Your task to perform on an android device: add a contact Image 0: 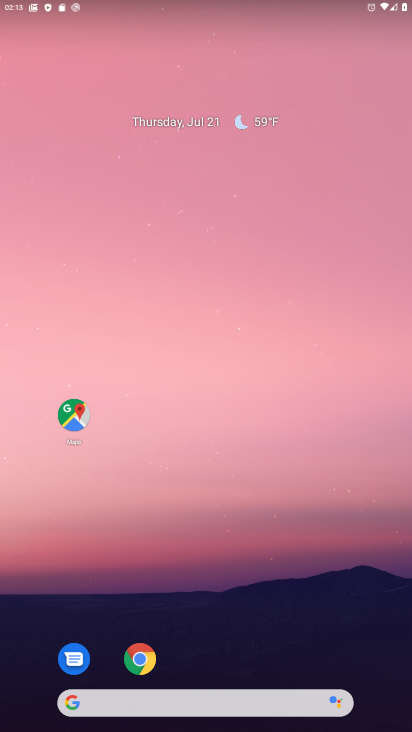
Step 0: drag from (273, 565) to (257, 118)
Your task to perform on an android device: add a contact Image 1: 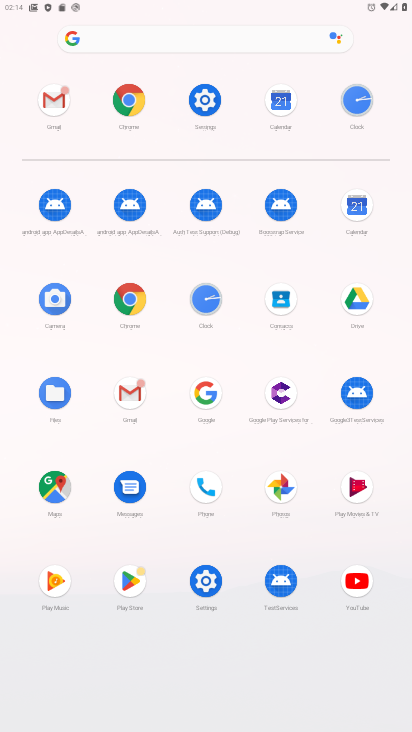
Step 1: click (288, 286)
Your task to perform on an android device: add a contact Image 2: 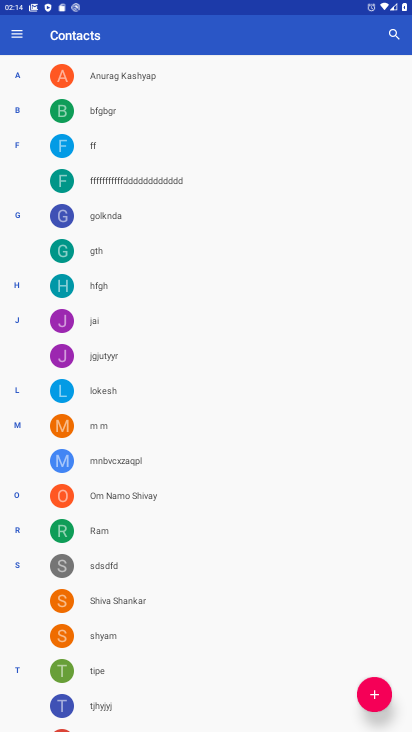
Step 2: click (371, 694)
Your task to perform on an android device: add a contact Image 3: 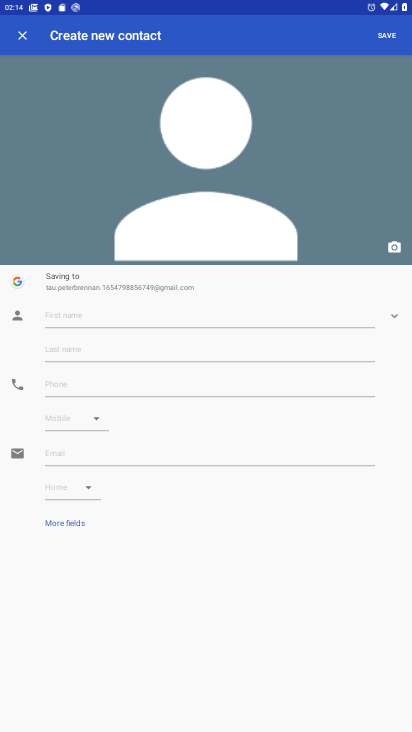
Step 3: click (214, 319)
Your task to perform on an android device: add a contact Image 4: 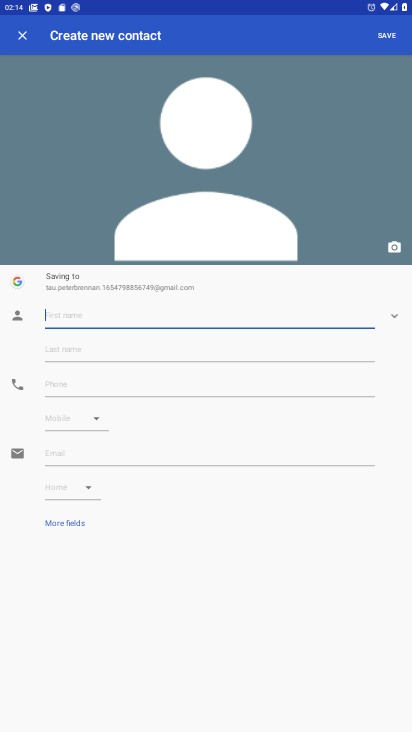
Step 4: click (214, 319)
Your task to perform on an android device: add a contact Image 5: 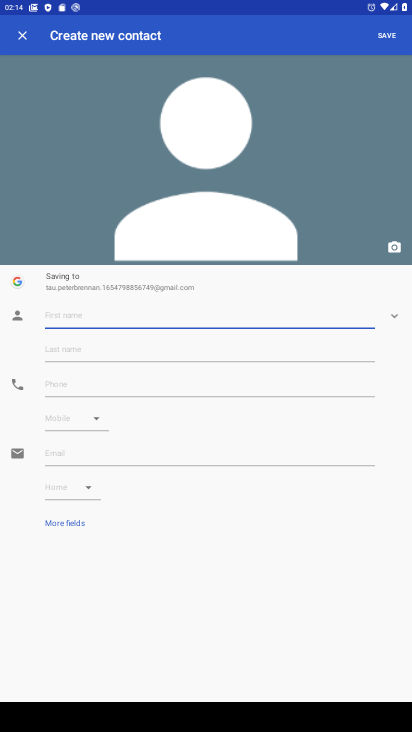
Step 5: type "chtta kurta"
Your task to perform on an android device: add a contact Image 6: 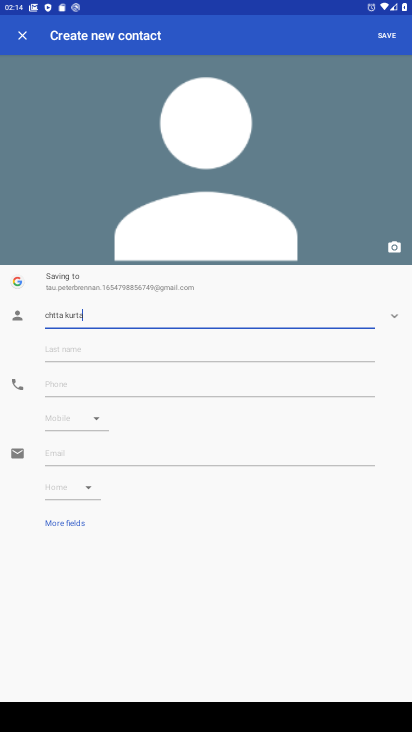
Step 6: click (400, 30)
Your task to perform on an android device: add a contact Image 7: 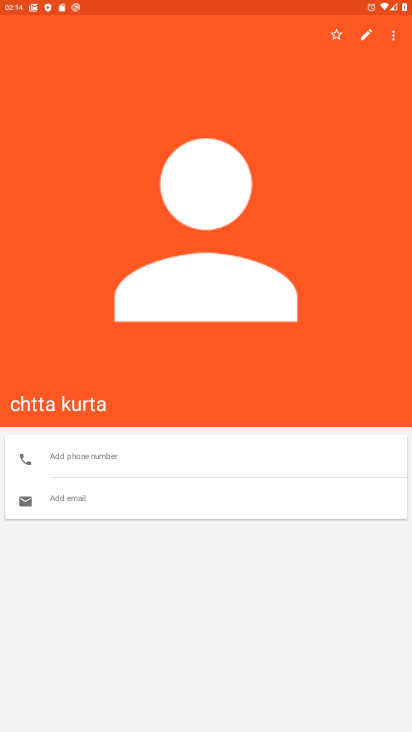
Step 7: task complete